Your task to perform on an android device: uninstall "PlayWell" Image 0: 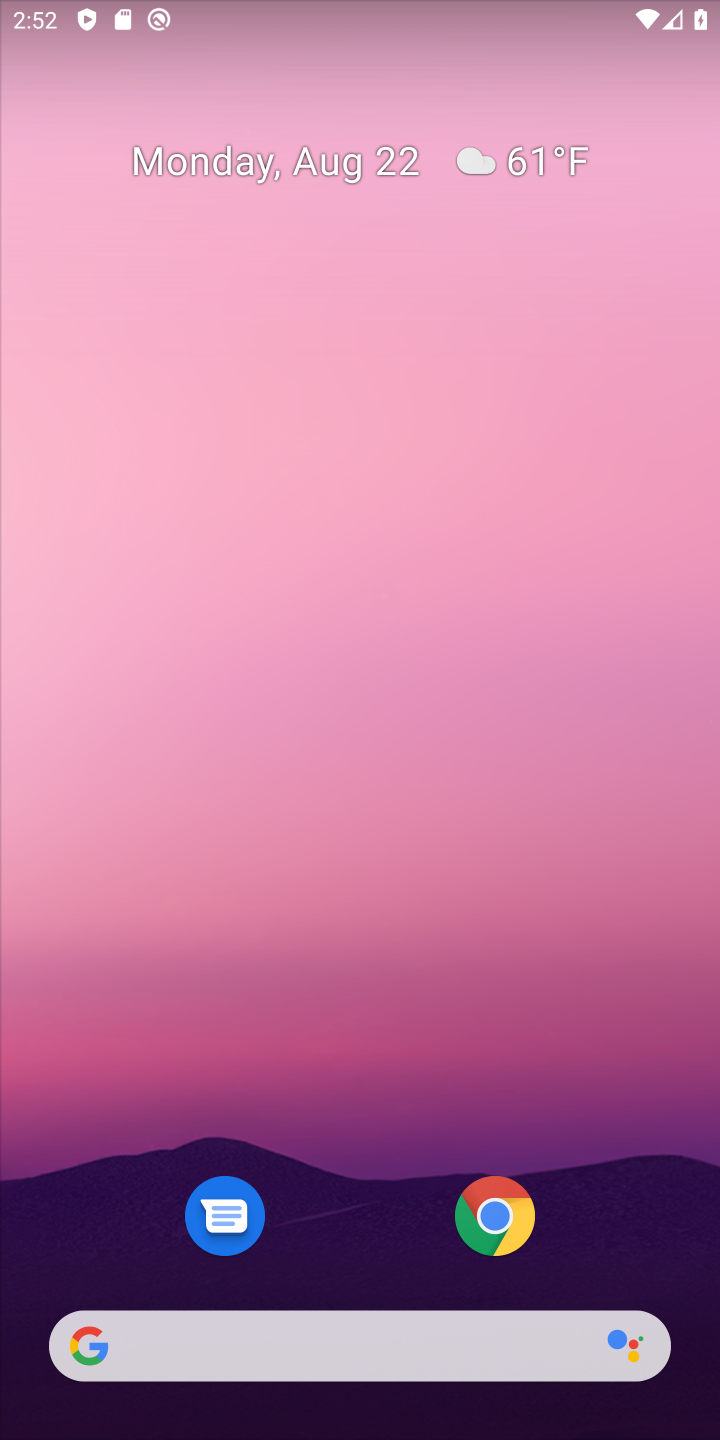
Step 0: drag from (346, 1217) to (334, 0)
Your task to perform on an android device: uninstall "PlayWell" Image 1: 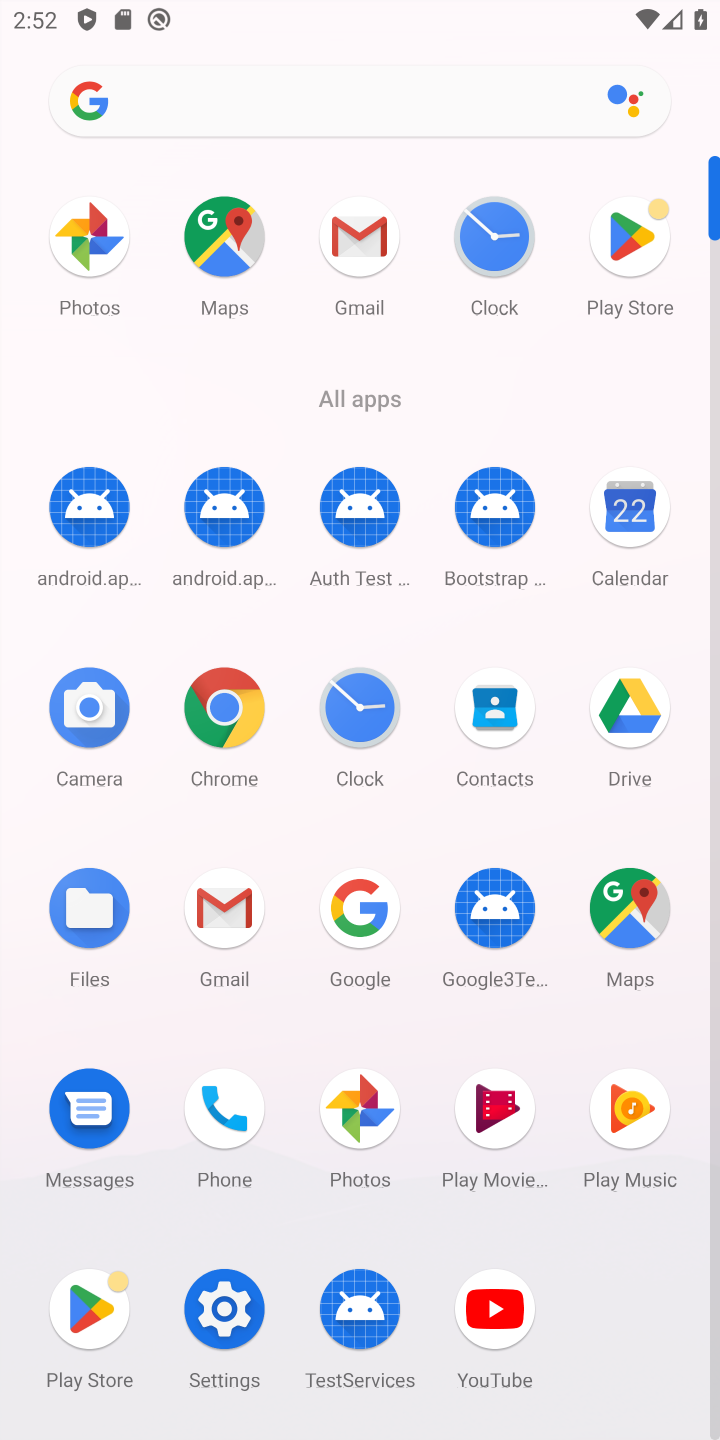
Step 1: click (624, 264)
Your task to perform on an android device: uninstall "PlayWell" Image 2: 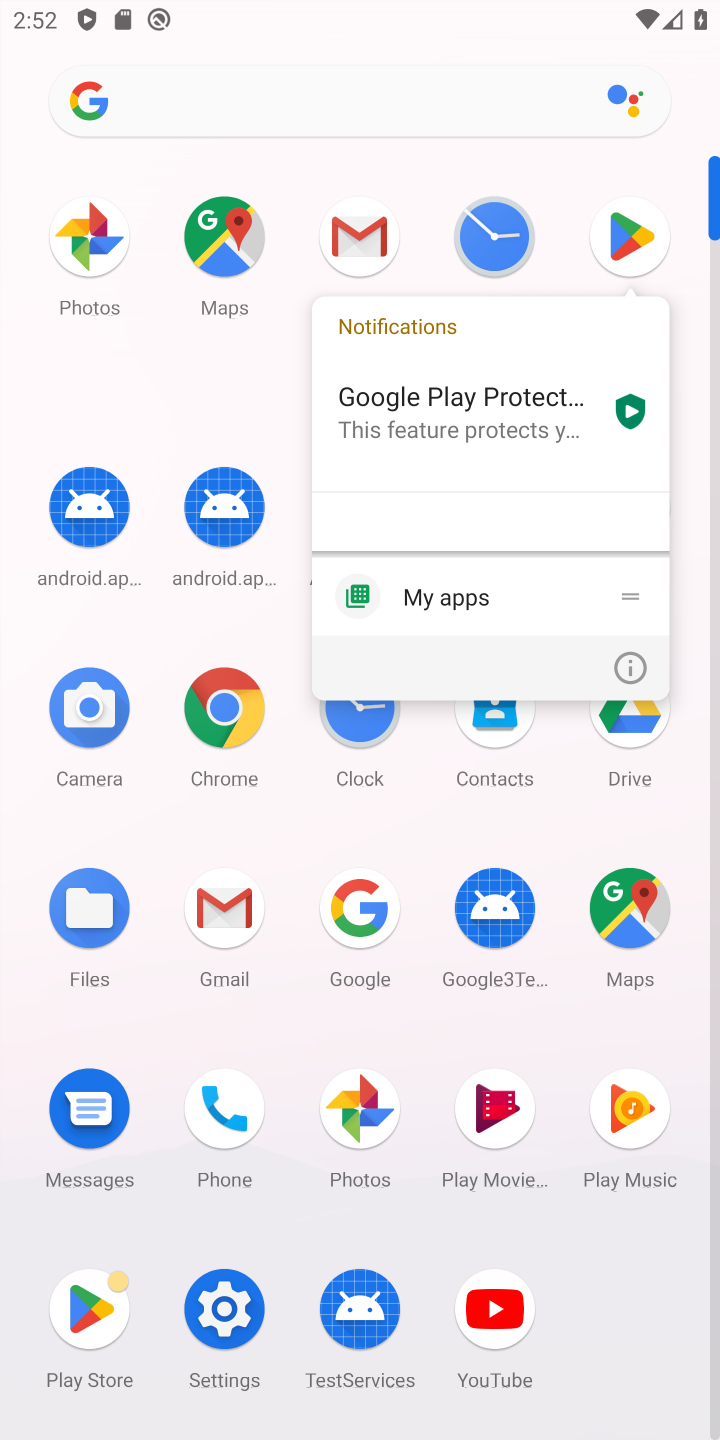
Step 2: click (643, 228)
Your task to perform on an android device: uninstall "PlayWell" Image 3: 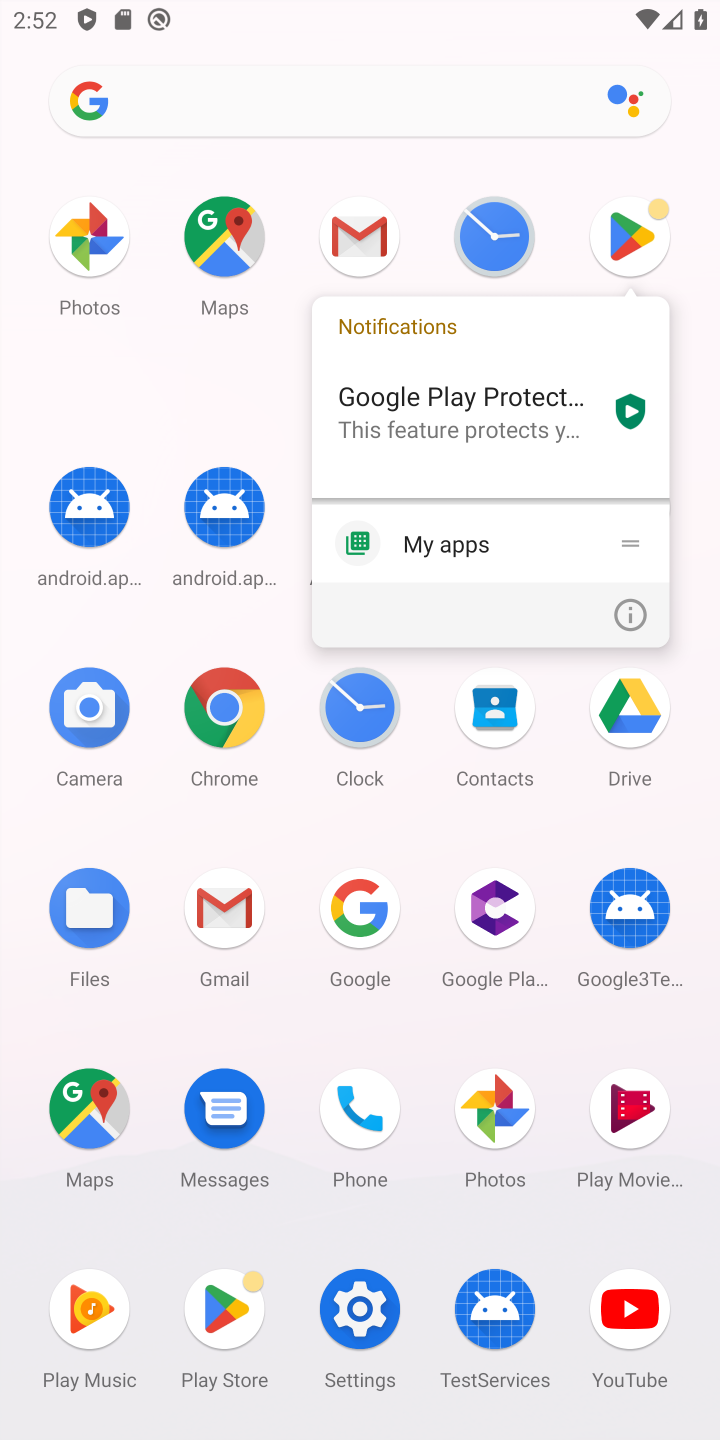
Step 3: click (643, 239)
Your task to perform on an android device: uninstall "PlayWell" Image 4: 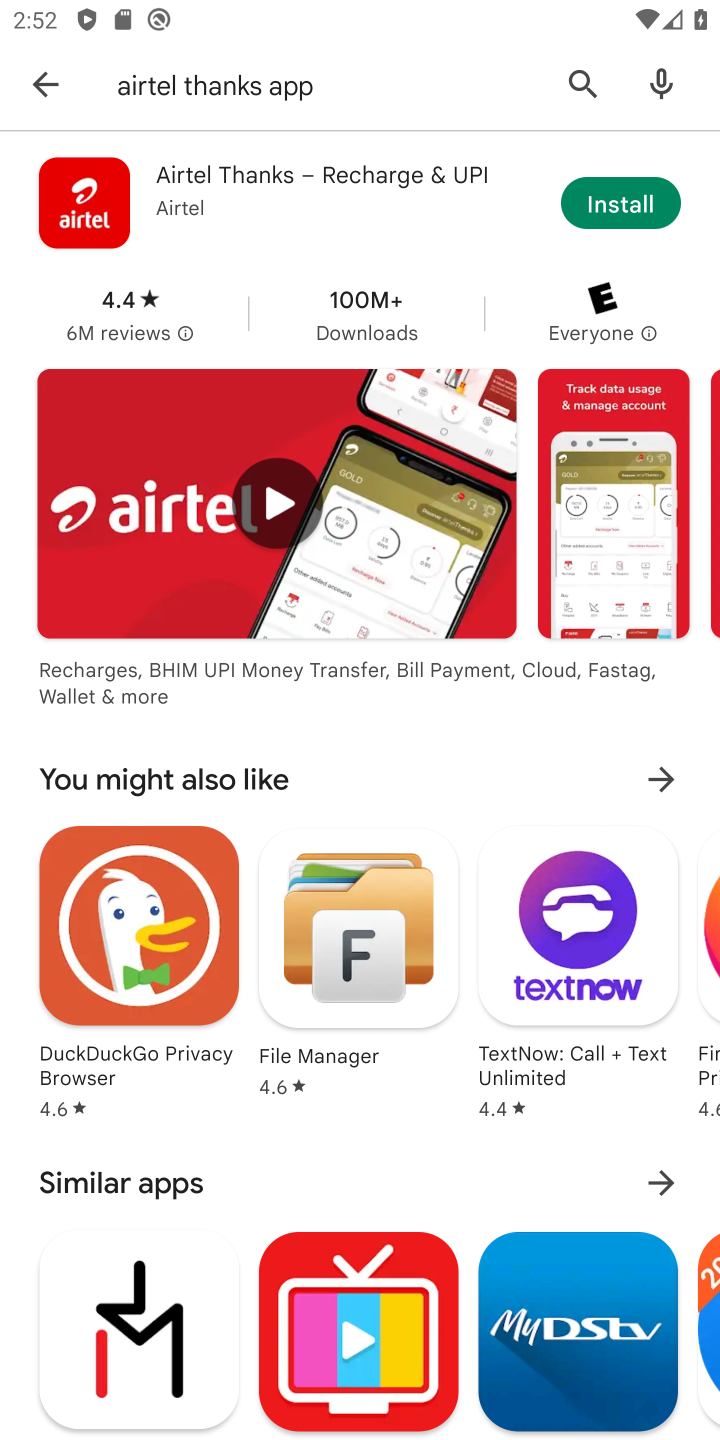
Step 4: click (419, 99)
Your task to perform on an android device: uninstall "PlayWell" Image 5: 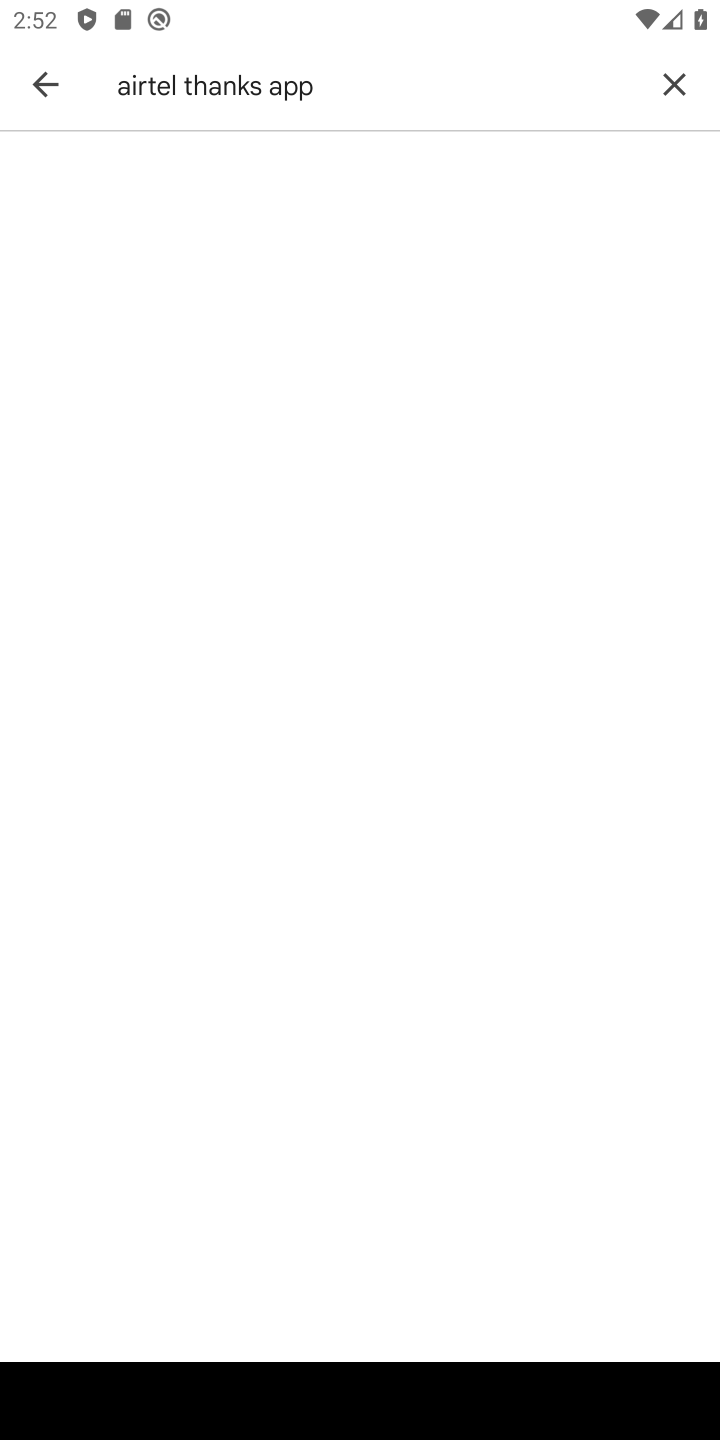
Step 5: click (352, 104)
Your task to perform on an android device: uninstall "PlayWell" Image 6: 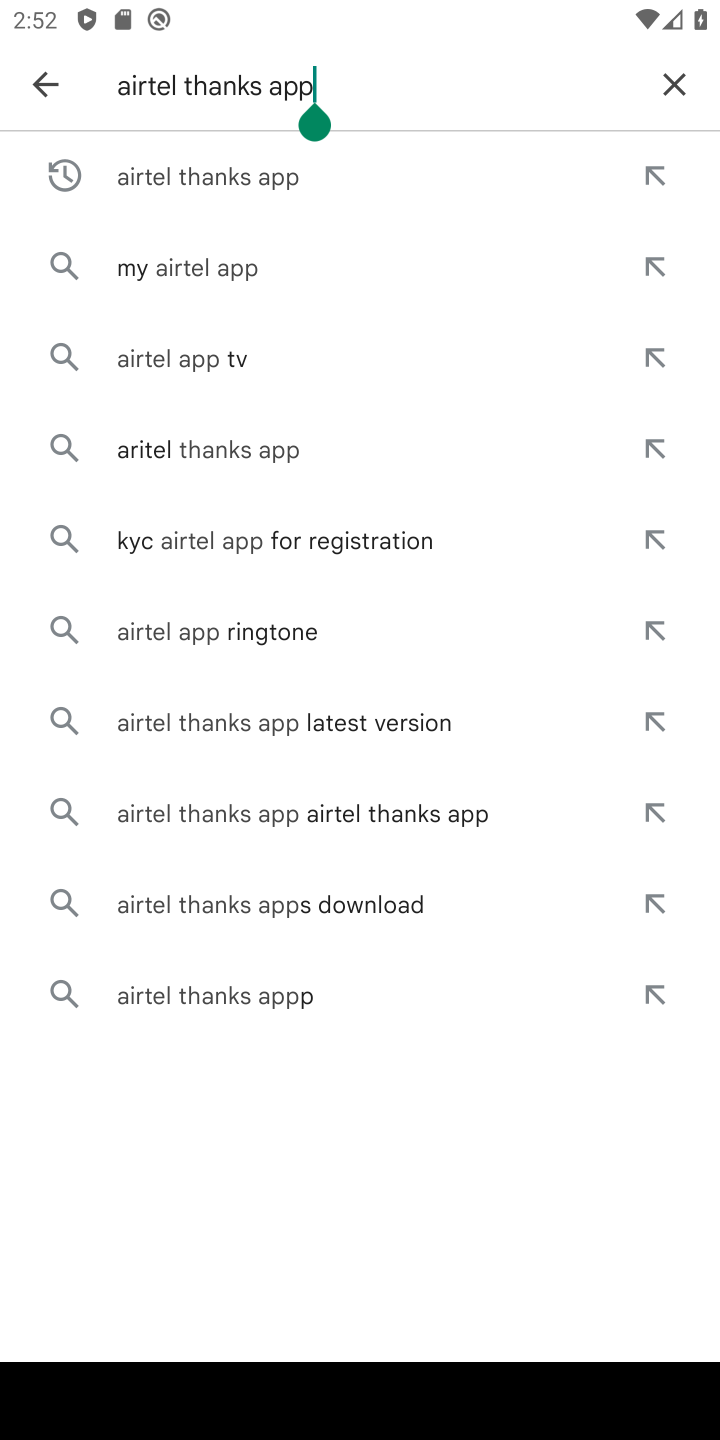
Step 6: click (679, 93)
Your task to perform on an android device: uninstall "PlayWell" Image 7: 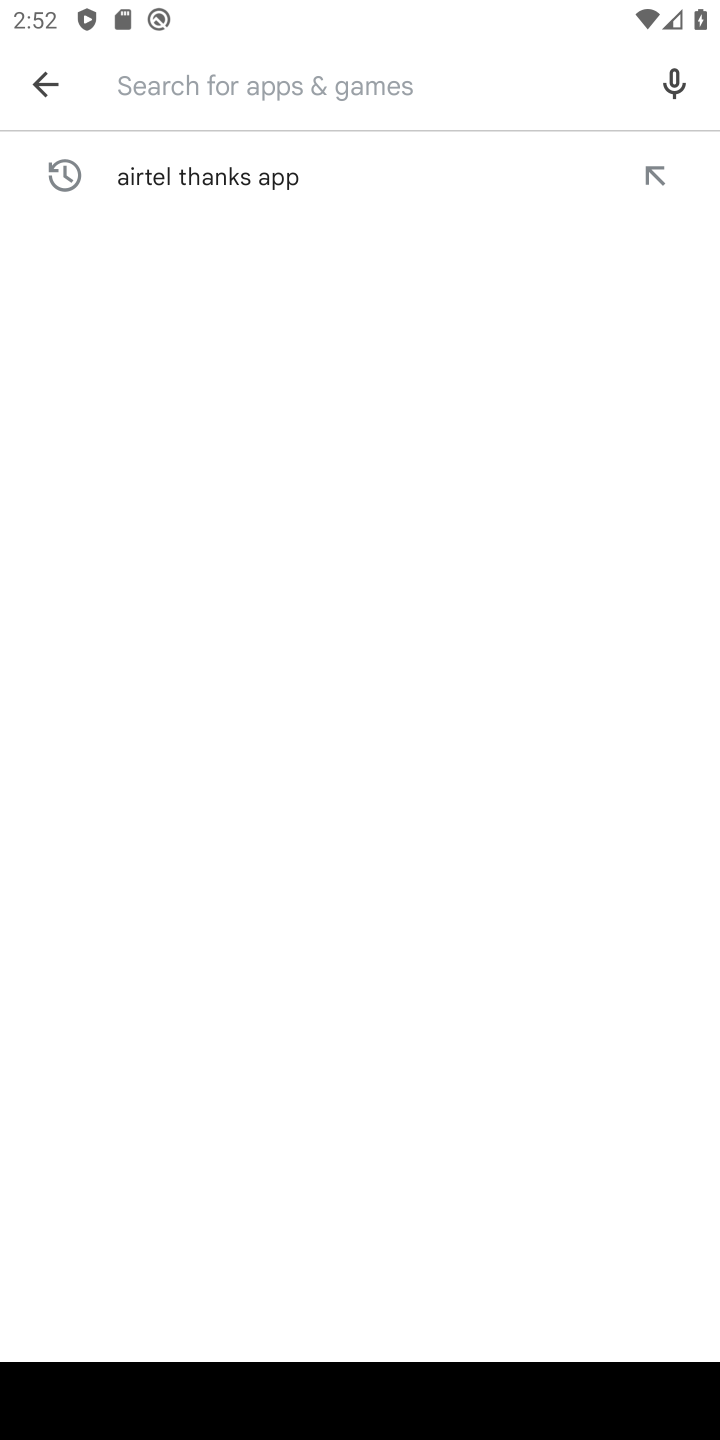
Step 7: type "playwell"
Your task to perform on an android device: uninstall "PlayWell" Image 8: 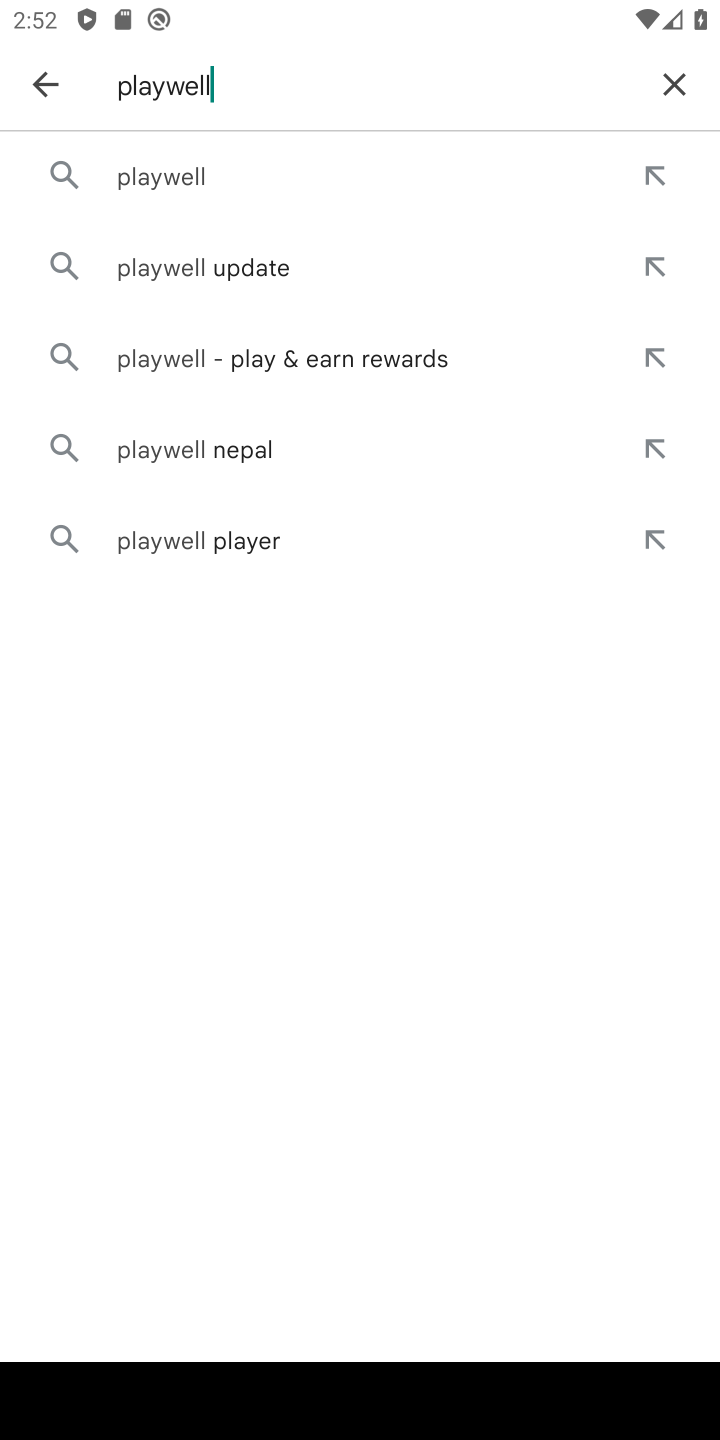
Step 8: click (396, 86)
Your task to perform on an android device: uninstall "PlayWell" Image 9: 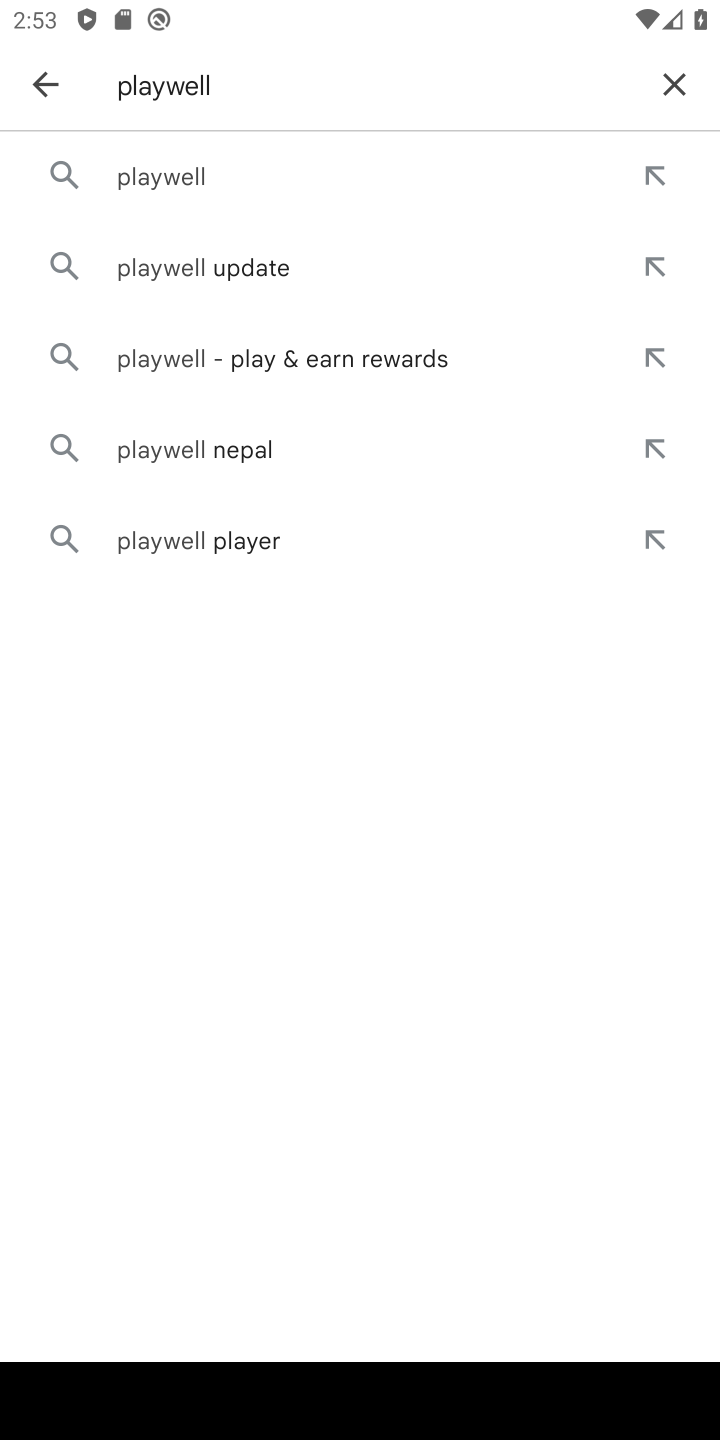
Step 9: click (188, 191)
Your task to perform on an android device: uninstall "PlayWell" Image 10: 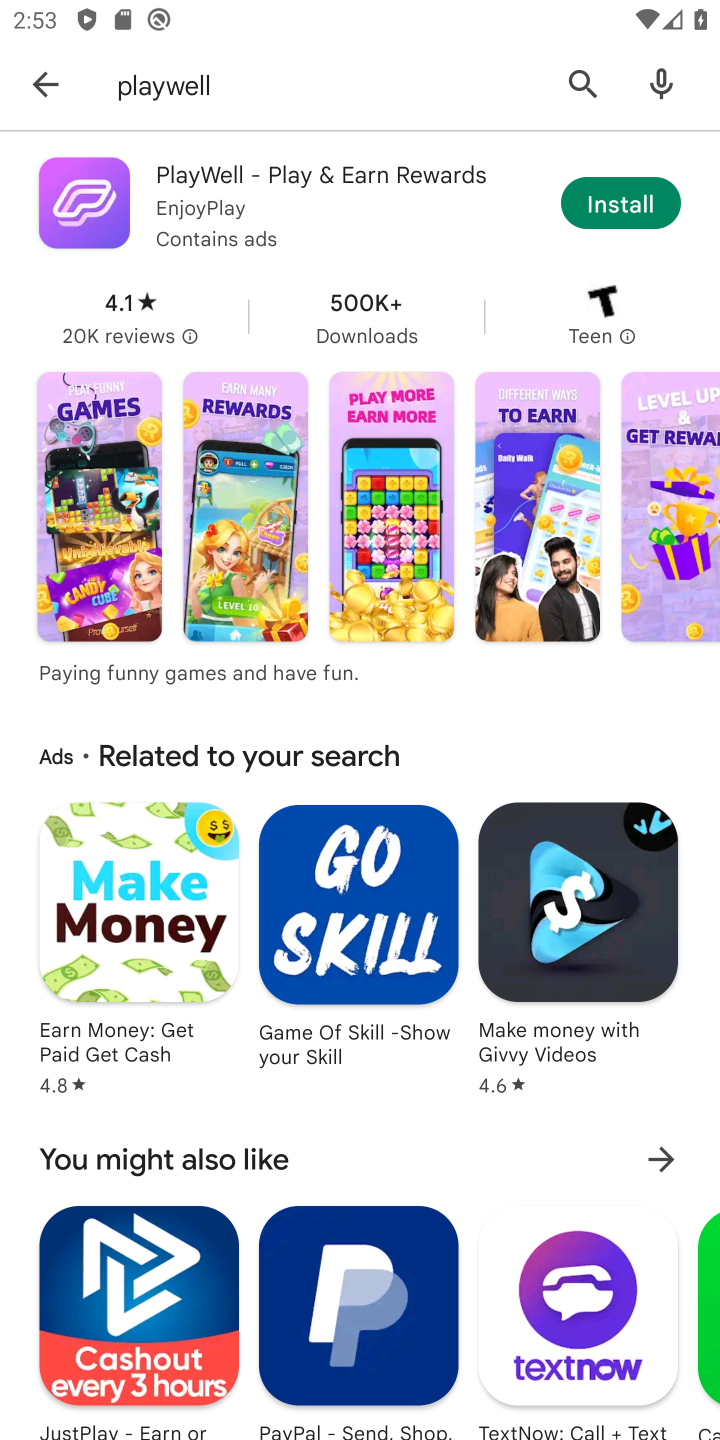
Step 10: task complete